Your task to perform on an android device: turn on airplane mode Image 0: 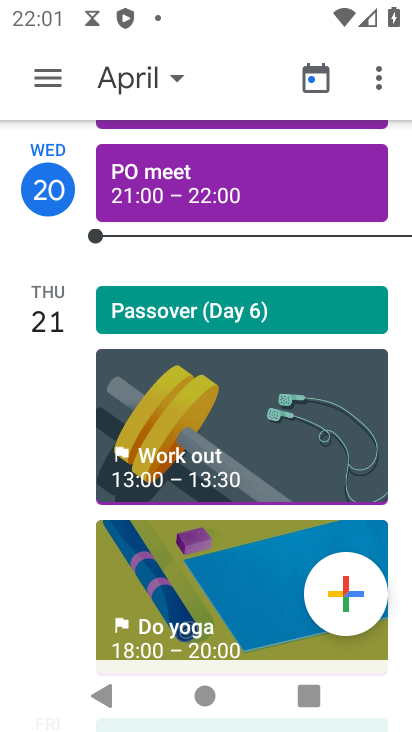
Step 0: press home button
Your task to perform on an android device: turn on airplane mode Image 1: 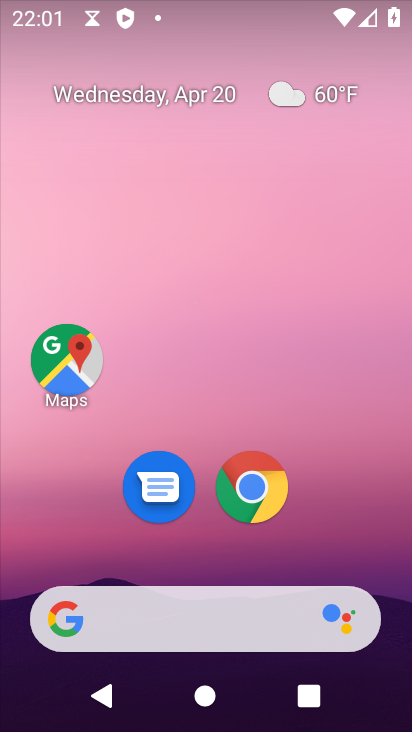
Step 1: drag from (128, 515) to (246, 240)
Your task to perform on an android device: turn on airplane mode Image 2: 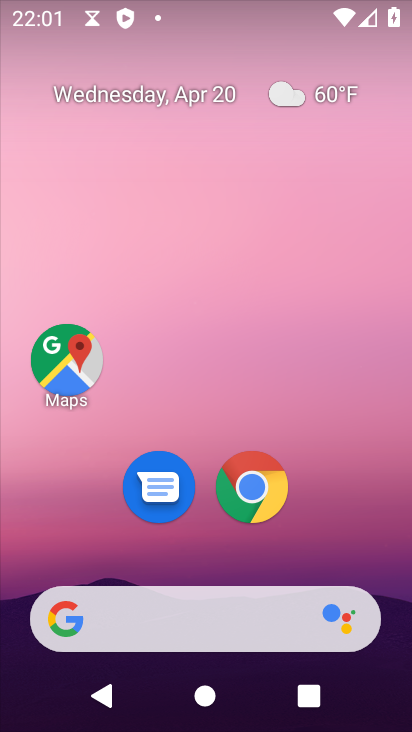
Step 2: drag from (50, 572) to (150, 382)
Your task to perform on an android device: turn on airplane mode Image 3: 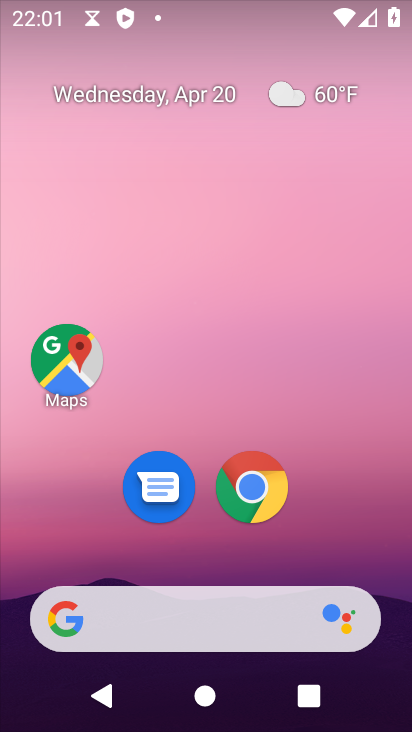
Step 3: drag from (59, 493) to (254, 306)
Your task to perform on an android device: turn on airplane mode Image 4: 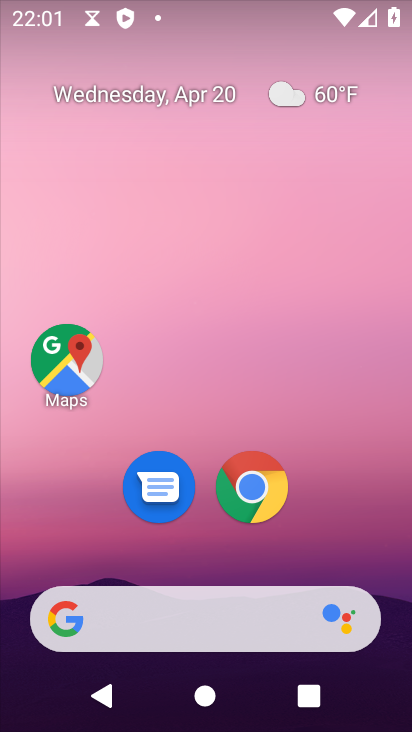
Step 4: drag from (34, 576) to (214, 278)
Your task to perform on an android device: turn on airplane mode Image 5: 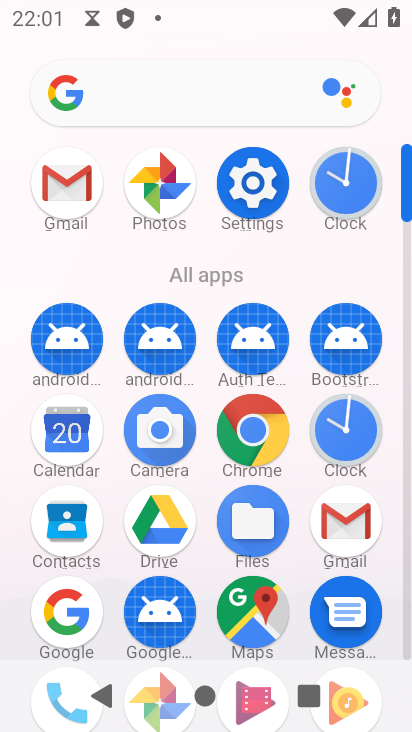
Step 5: click (269, 205)
Your task to perform on an android device: turn on airplane mode Image 6: 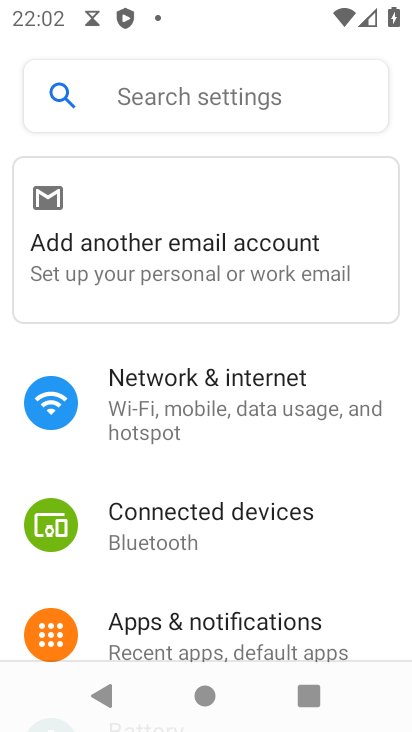
Step 6: click (266, 405)
Your task to perform on an android device: turn on airplane mode Image 7: 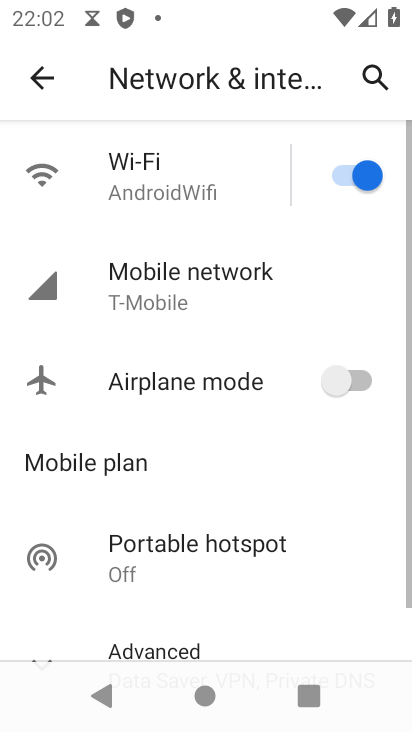
Step 7: click (331, 378)
Your task to perform on an android device: turn on airplane mode Image 8: 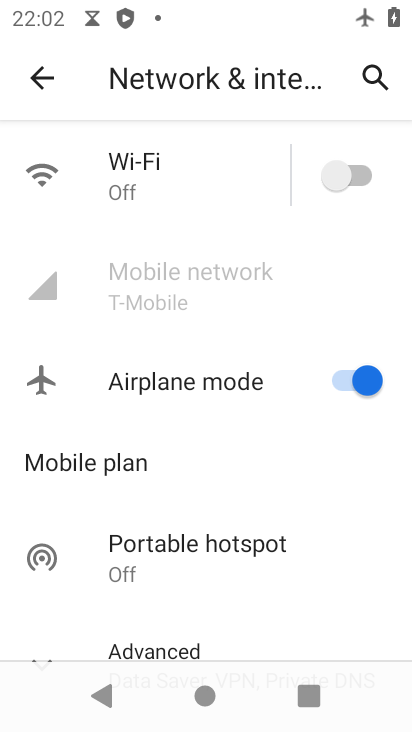
Step 8: task complete